Your task to perform on an android device: Search for sushi restaurants on Maps Image 0: 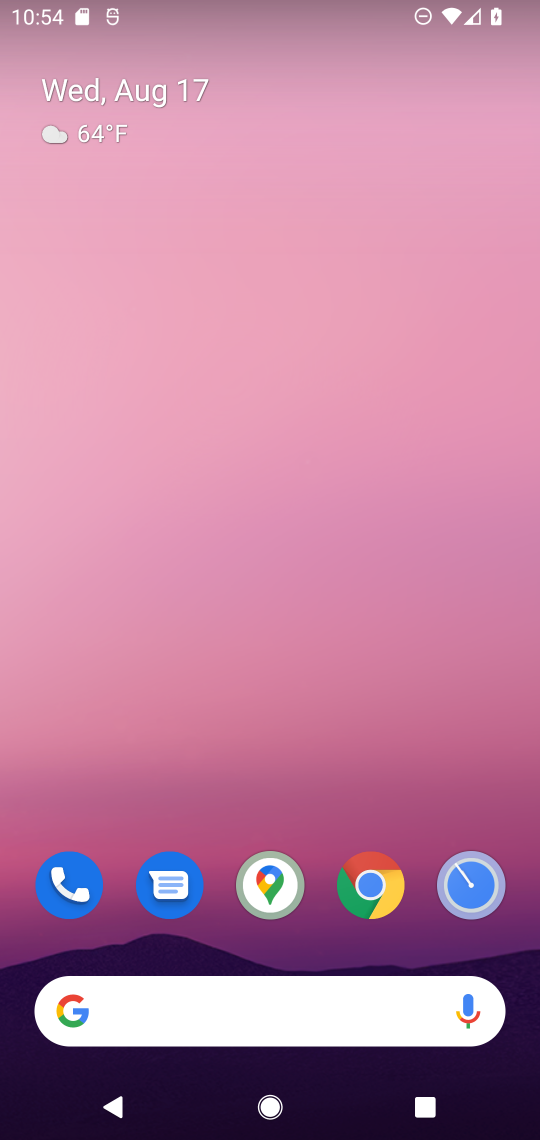
Step 0: click (268, 881)
Your task to perform on an android device: Search for sushi restaurants on Maps Image 1: 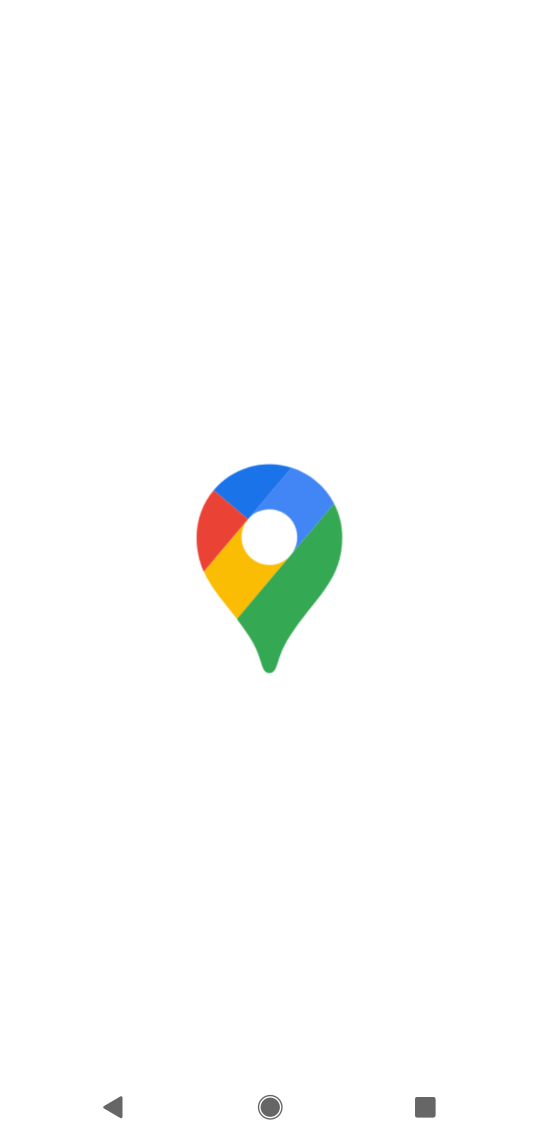
Step 1: task complete